Your task to perform on an android device: change notification settings in the gmail app Image 0: 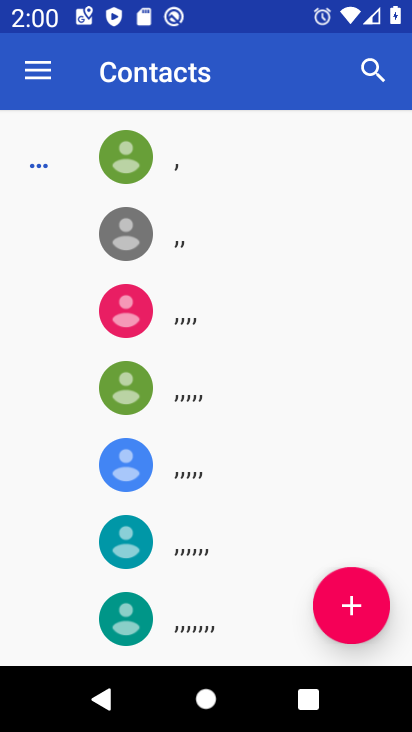
Step 0: press home button
Your task to perform on an android device: change notification settings in the gmail app Image 1: 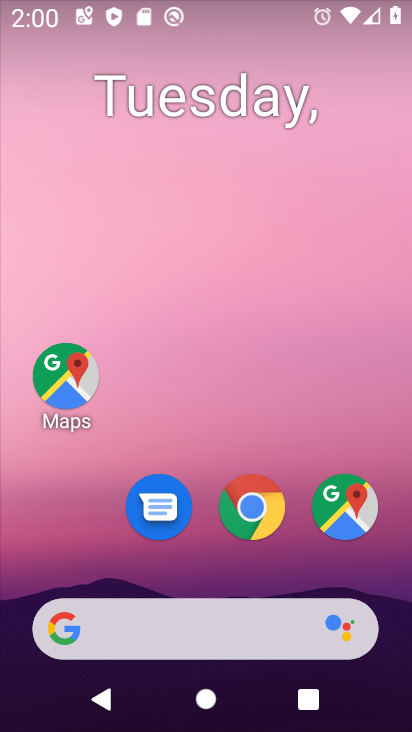
Step 1: drag from (303, 566) to (331, 149)
Your task to perform on an android device: change notification settings in the gmail app Image 2: 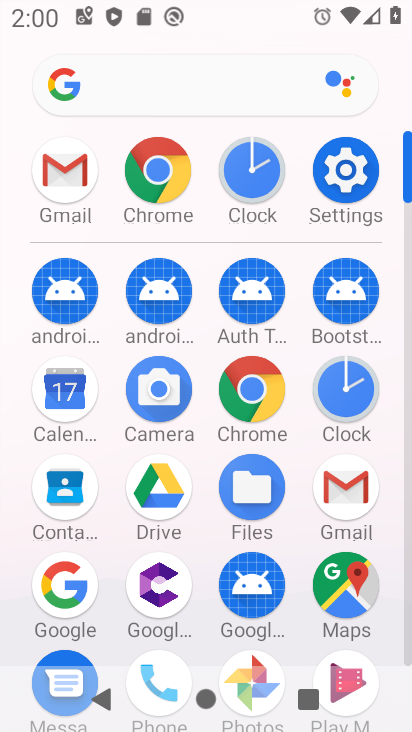
Step 2: click (342, 498)
Your task to perform on an android device: change notification settings in the gmail app Image 3: 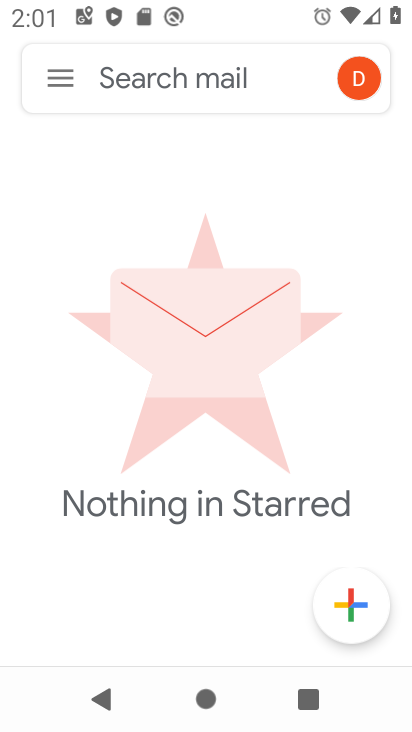
Step 3: click (43, 76)
Your task to perform on an android device: change notification settings in the gmail app Image 4: 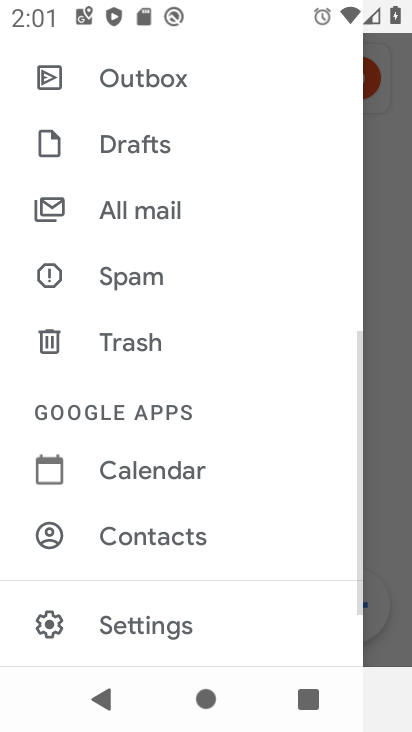
Step 4: click (147, 636)
Your task to perform on an android device: change notification settings in the gmail app Image 5: 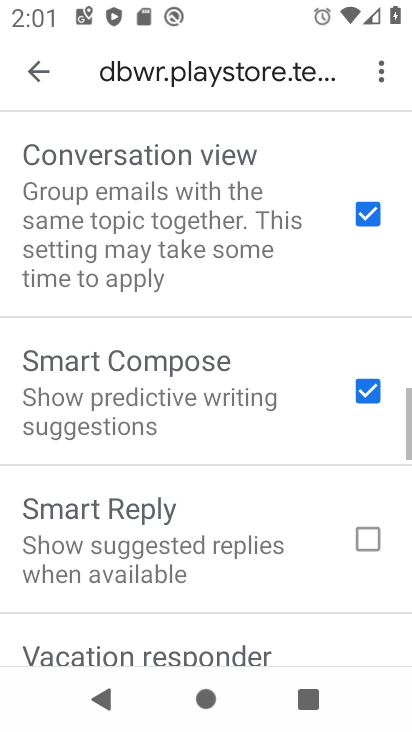
Step 5: drag from (187, 181) to (211, 655)
Your task to perform on an android device: change notification settings in the gmail app Image 6: 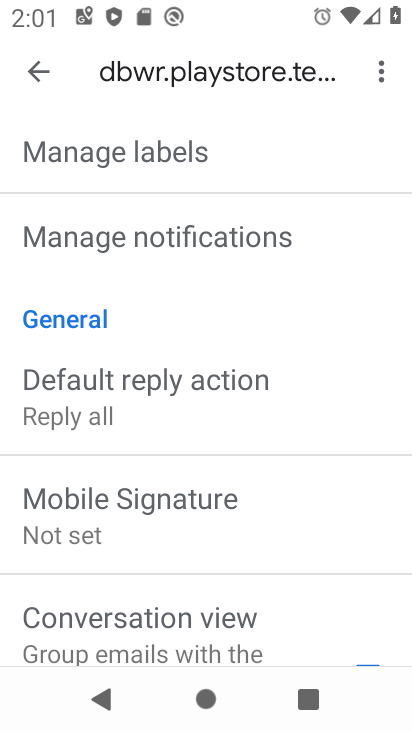
Step 6: drag from (179, 241) to (182, 593)
Your task to perform on an android device: change notification settings in the gmail app Image 7: 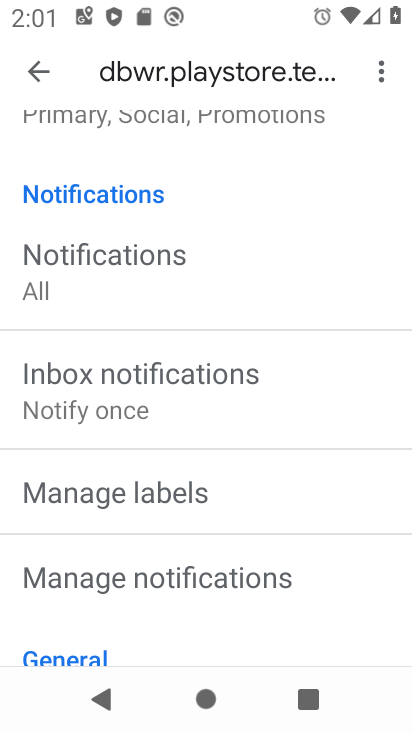
Step 7: click (145, 284)
Your task to perform on an android device: change notification settings in the gmail app Image 8: 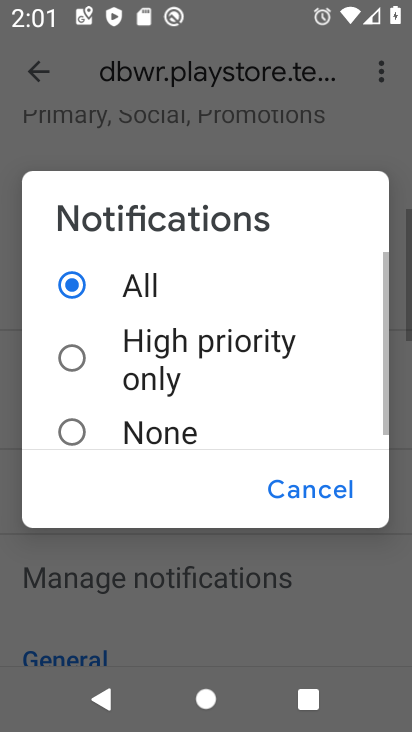
Step 8: click (159, 440)
Your task to perform on an android device: change notification settings in the gmail app Image 9: 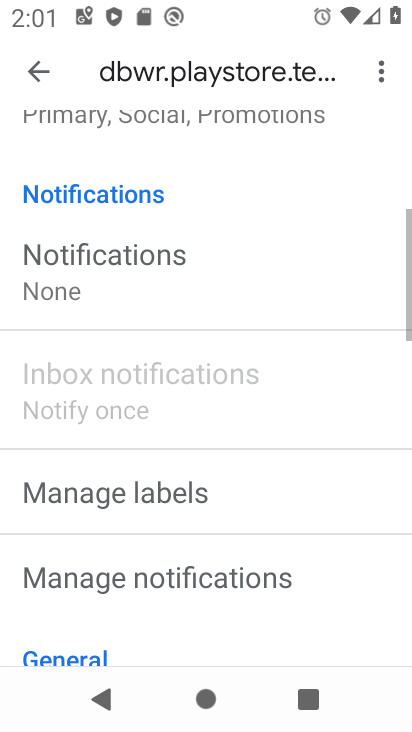
Step 9: task complete